Your task to perform on an android device: Open Google Chrome Image 0: 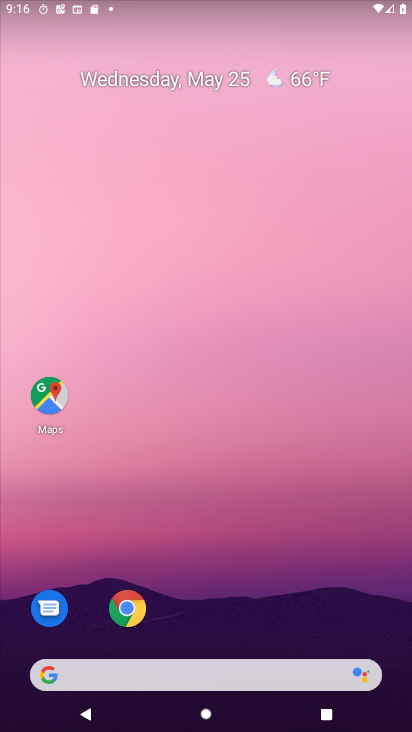
Step 0: click (130, 610)
Your task to perform on an android device: Open Google Chrome Image 1: 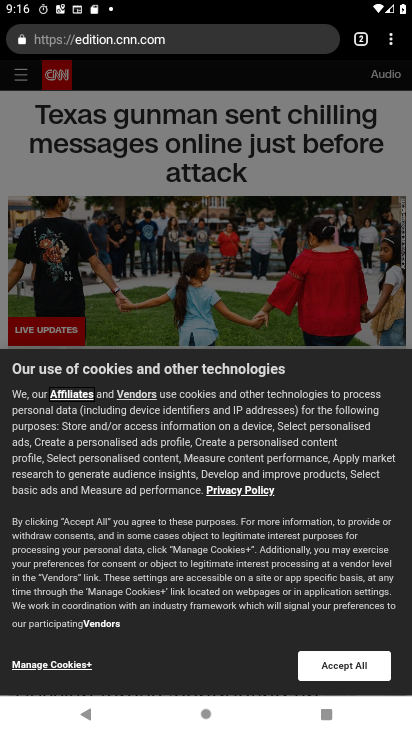
Step 1: task complete